Your task to perform on an android device: Open Amazon Image 0: 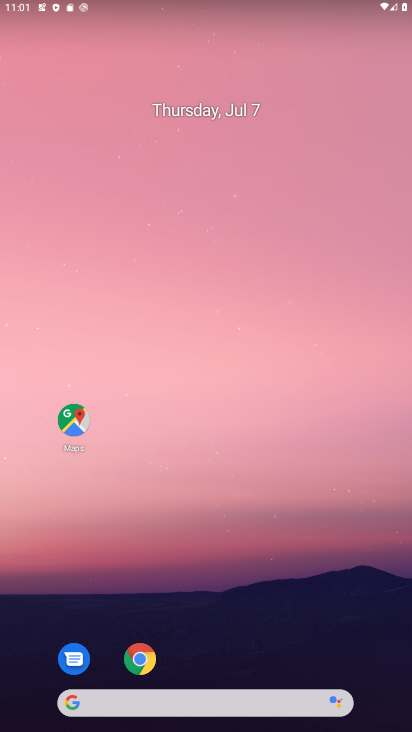
Step 0: press home button
Your task to perform on an android device: Open Amazon Image 1: 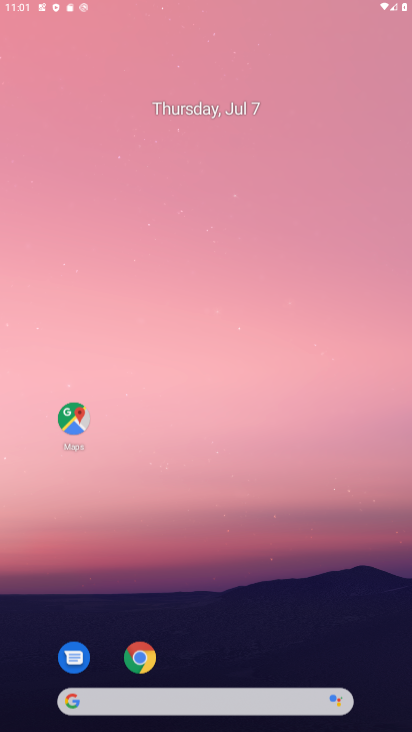
Step 1: drag from (224, 670) to (260, 181)
Your task to perform on an android device: Open Amazon Image 2: 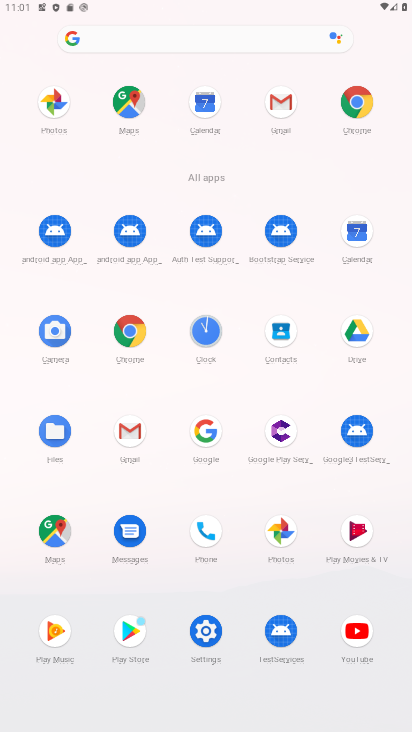
Step 2: click (350, 97)
Your task to perform on an android device: Open Amazon Image 3: 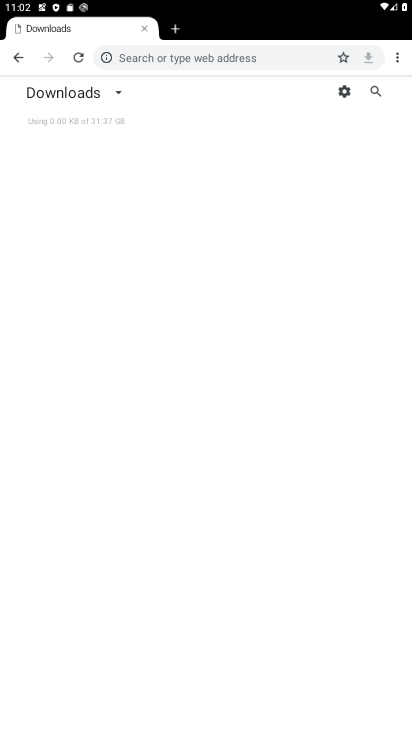
Step 3: click (173, 18)
Your task to perform on an android device: Open Amazon Image 4: 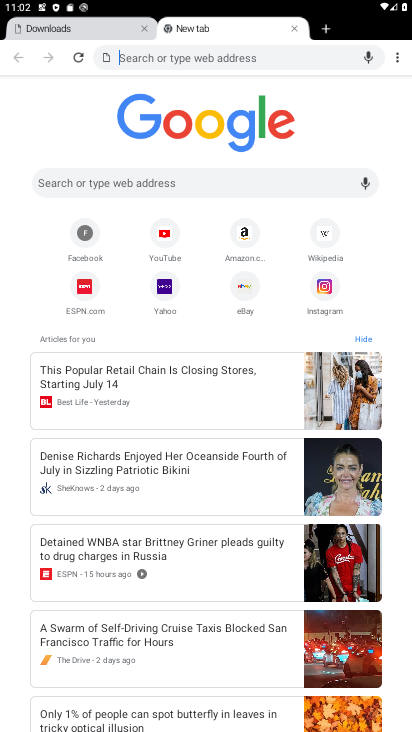
Step 4: click (241, 226)
Your task to perform on an android device: Open Amazon Image 5: 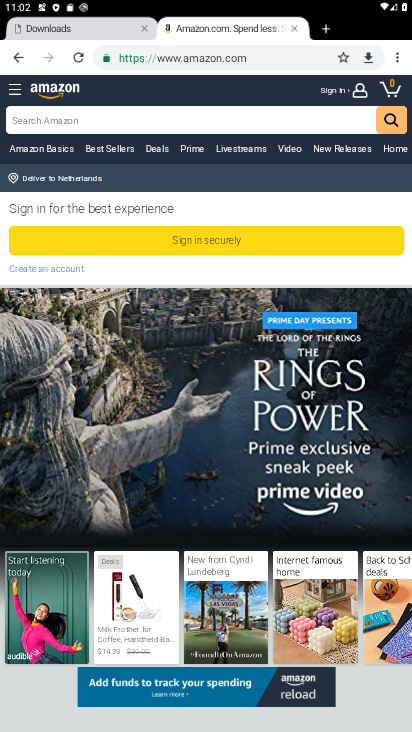
Step 5: task complete